Your task to perform on an android device: Go to settings Image 0: 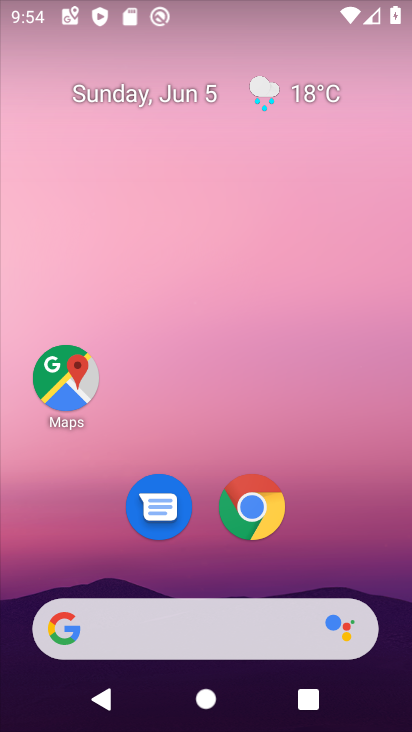
Step 0: drag from (214, 570) to (266, 44)
Your task to perform on an android device: Go to settings Image 1: 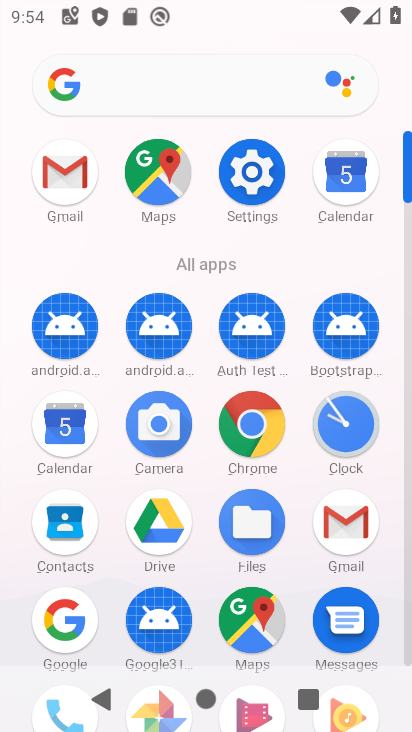
Step 1: click (249, 184)
Your task to perform on an android device: Go to settings Image 2: 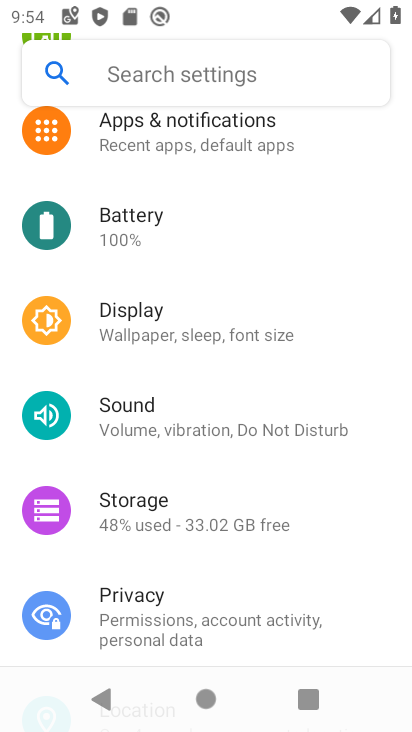
Step 2: task complete